Your task to perform on an android device: Show the shopping cart on costco.com. Search for logitech g933 on costco.com, select the first entry, add it to the cart, then select checkout. Image 0: 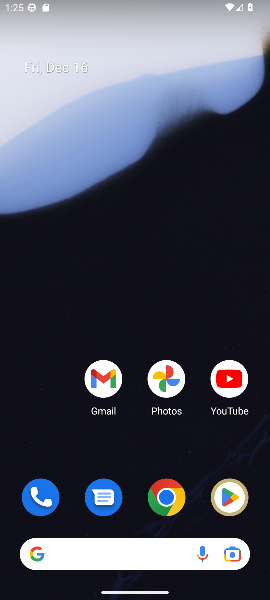
Step 0: click (176, 491)
Your task to perform on an android device: Show the shopping cart on costco.com. Search for logitech g933 on costco.com, select the first entry, add it to the cart, then select checkout. Image 1: 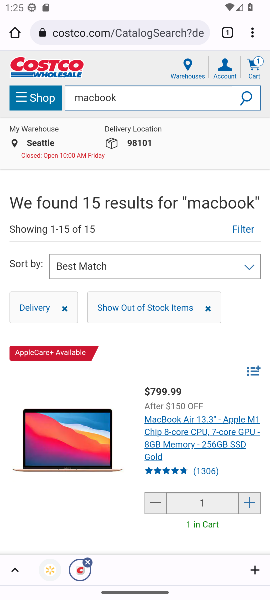
Step 1: click (252, 66)
Your task to perform on an android device: Show the shopping cart on costco.com. Search for logitech g933 on costco.com, select the first entry, add it to the cart, then select checkout. Image 2: 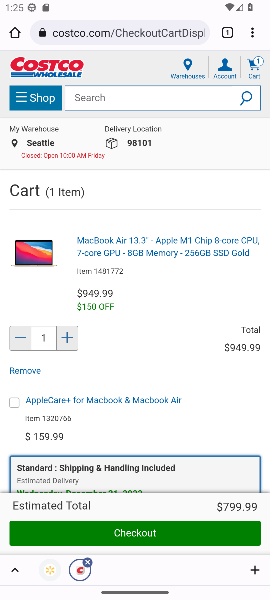
Step 2: click (126, 99)
Your task to perform on an android device: Show the shopping cart on costco.com. Search for logitech g933 on costco.com, select the first entry, add it to the cart, then select checkout. Image 3: 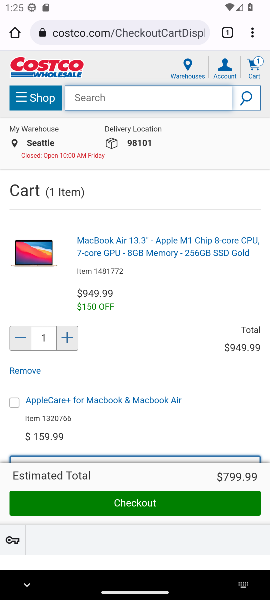
Step 3: type "logitech g933"
Your task to perform on an android device: Show the shopping cart on costco.com. Search for logitech g933 on costco.com, select the first entry, add it to the cart, then select checkout. Image 4: 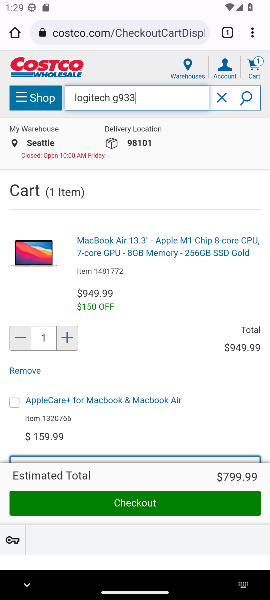
Step 4: click (246, 101)
Your task to perform on an android device: Show the shopping cart on costco.com. Search for logitech g933 on costco.com, select the first entry, add it to the cart, then select checkout. Image 5: 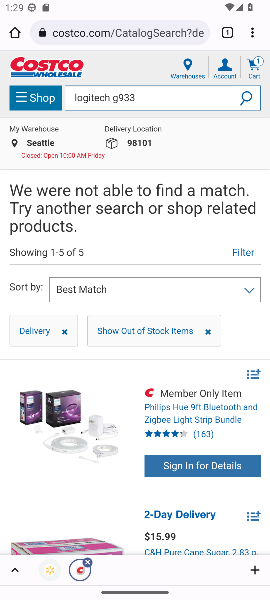
Step 5: click (200, 406)
Your task to perform on an android device: Show the shopping cart on costco.com. Search for logitech g933 on costco.com, select the first entry, add it to the cart, then select checkout. Image 6: 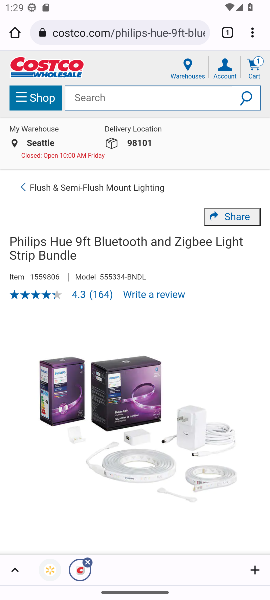
Step 6: task complete